Your task to perform on an android device: What's the weather going to be this weekend? Image 0: 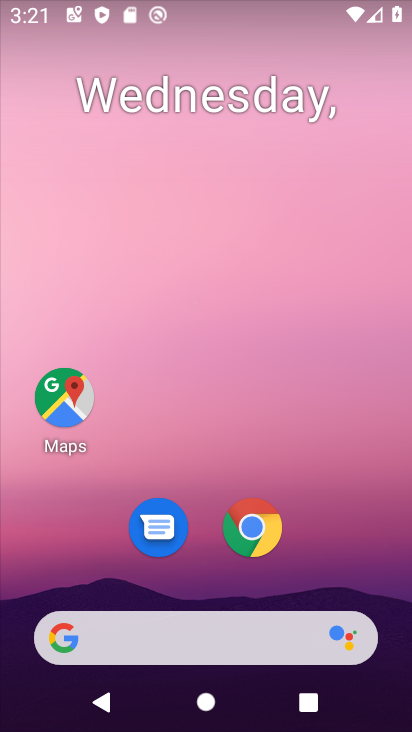
Step 0: drag from (324, 549) to (363, 141)
Your task to perform on an android device: What's the weather going to be this weekend? Image 1: 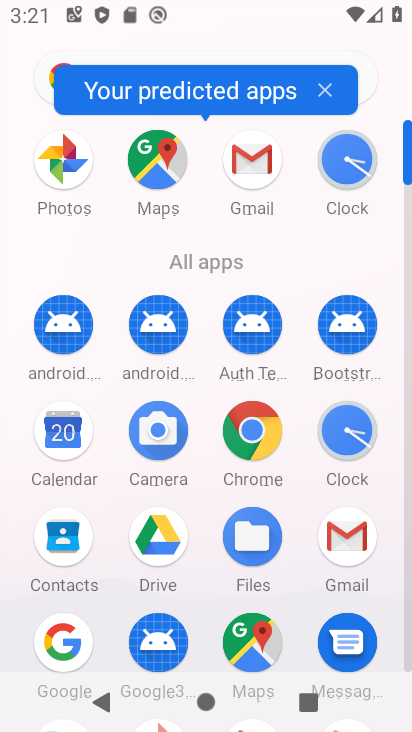
Step 1: click (266, 448)
Your task to perform on an android device: What's the weather going to be this weekend? Image 2: 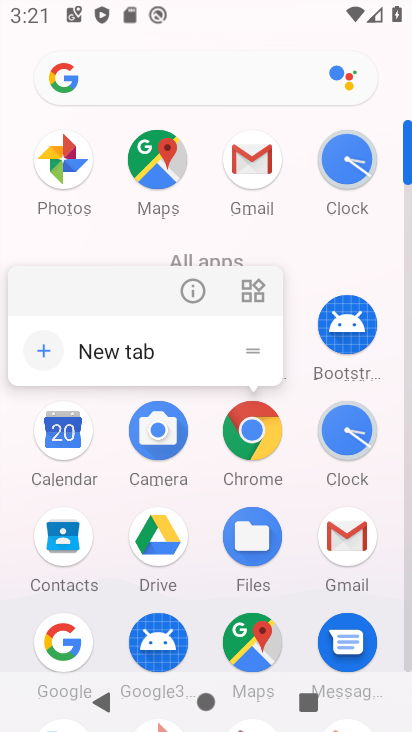
Step 2: click (254, 447)
Your task to perform on an android device: What's the weather going to be this weekend? Image 3: 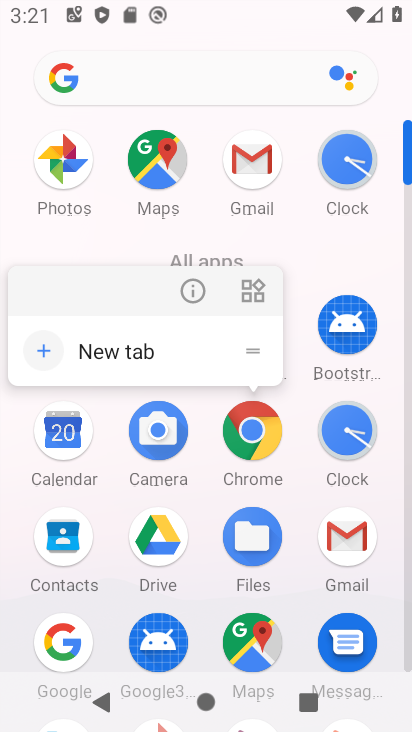
Step 3: click (257, 425)
Your task to perform on an android device: What's the weather going to be this weekend? Image 4: 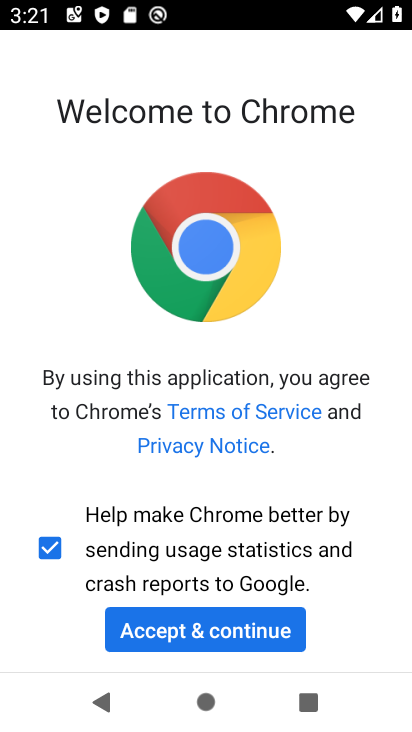
Step 4: click (165, 639)
Your task to perform on an android device: What's the weather going to be this weekend? Image 5: 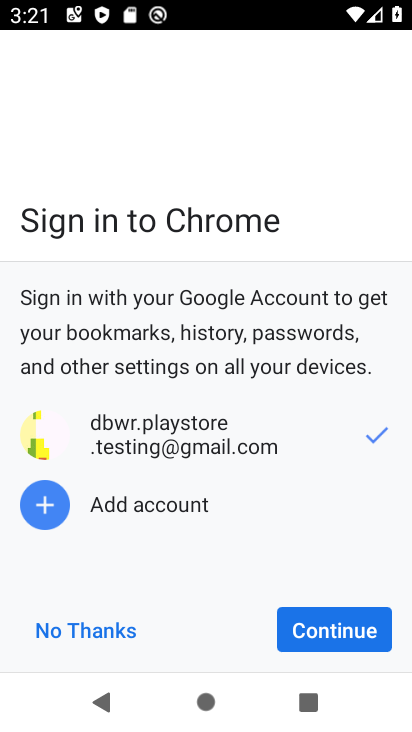
Step 5: click (305, 641)
Your task to perform on an android device: What's the weather going to be this weekend? Image 6: 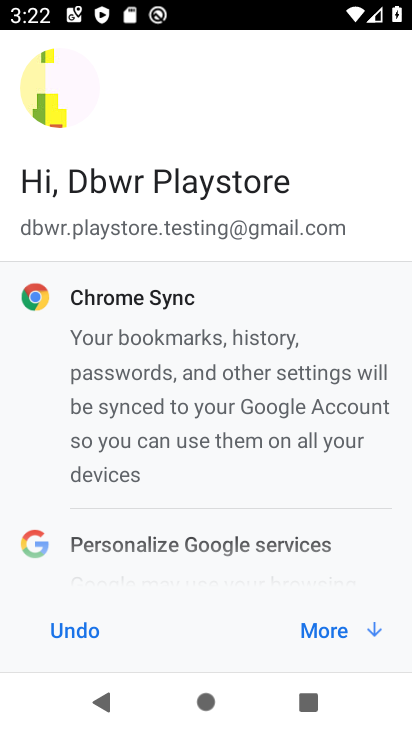
Step 6: click (330, 627)
Your task to perform on an android device: What's the weather going to be this weekend? Image 7: 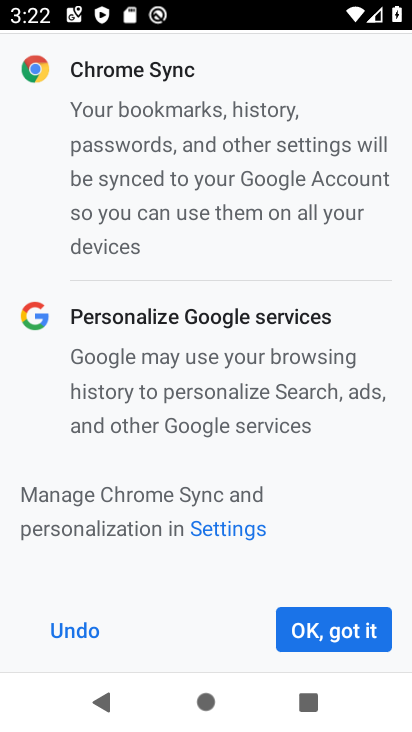
Step 7: click (330, 628)
Your task to perform on an android device: What's the weather going to be this weekend? Image 8: 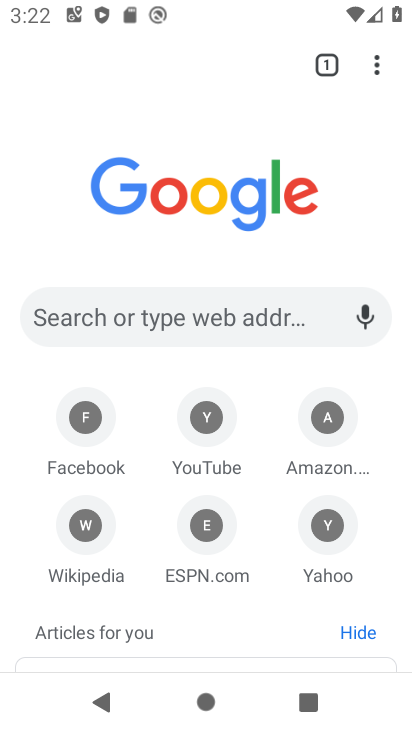
Step 8: click (173, 72)
Your task to perform on an android device: What's the weather going to be this weekend? Image 9: 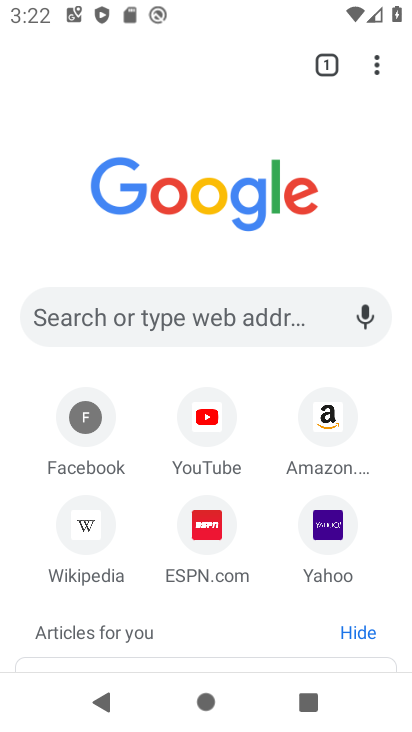
Step 9: click (120, 320)
Your task to perform on an android device: What's the weather going to be this weekend? Image 10: 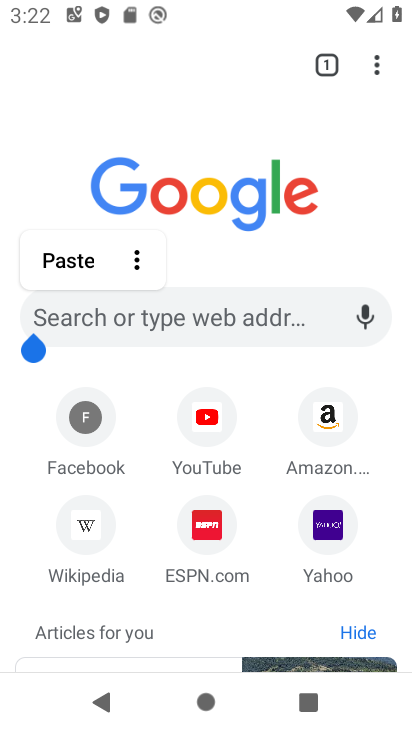
Step 10: click (272, 316)
Your task to perform on an android device: What's the weather going to be this weekend? Image 11: 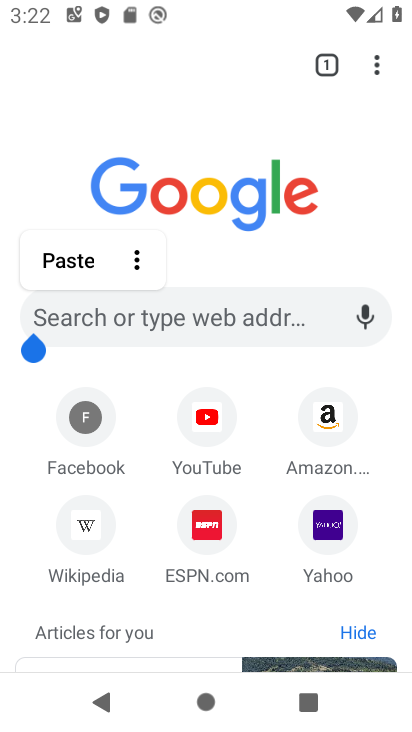
Step 11: click (233, 320)
Your task to perform on an android device: What's the weather going to be this weekend? Image 12: 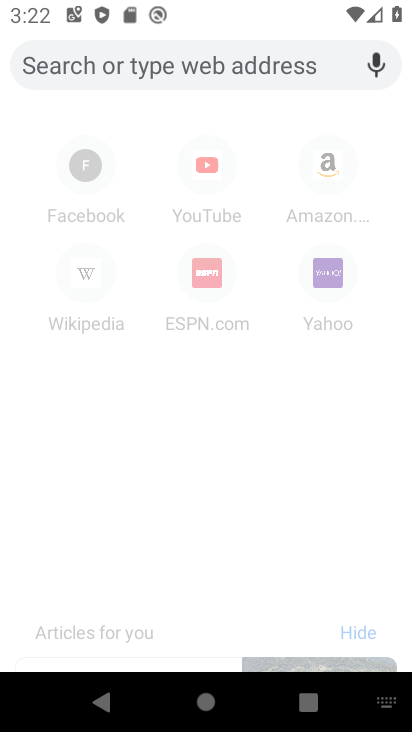
Step 12: type "what's the weather going to be this weekend?"
Your task to perform on an android device: What's the weather going to be this weekend? Image 13: 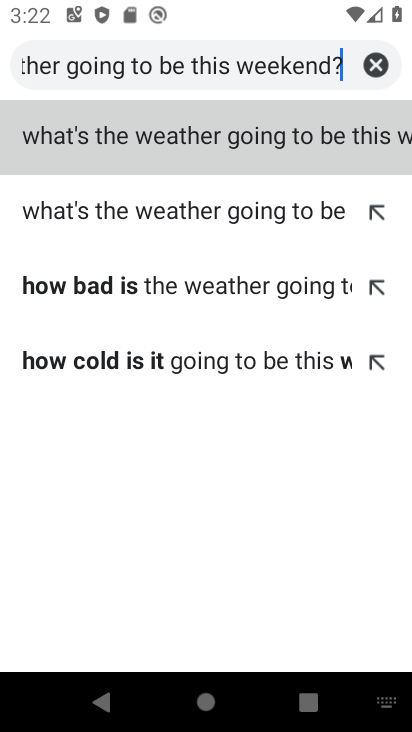
Step 13: click (151, 152)
Your task to perform on an android device: What's the weather going to be this weekend? Image 14: 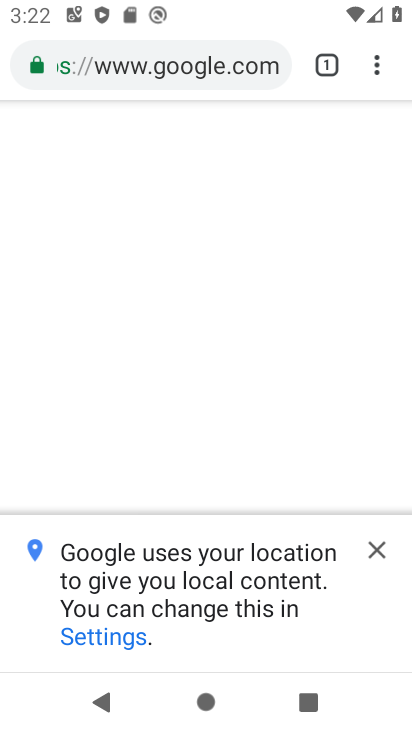
Step 14: click (379, 544)
Your task to perform on an android device: What's the weather going to be this weekend? Image 15: 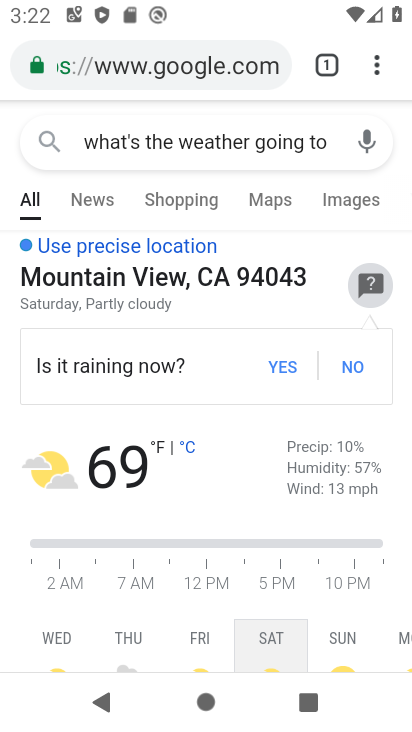
Step 15: task complete